Your task to perform on an android device: Go to display settings Image 0: 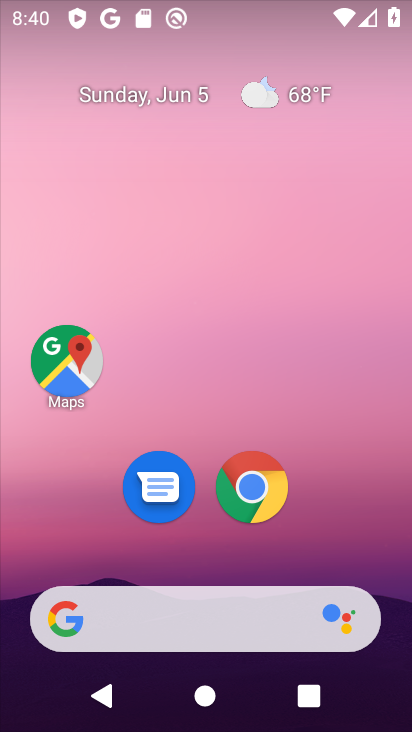
Step 0: drag from (211, 542) to (251, 14)
Your task to perform on an android device: Go to display settings Image 1: 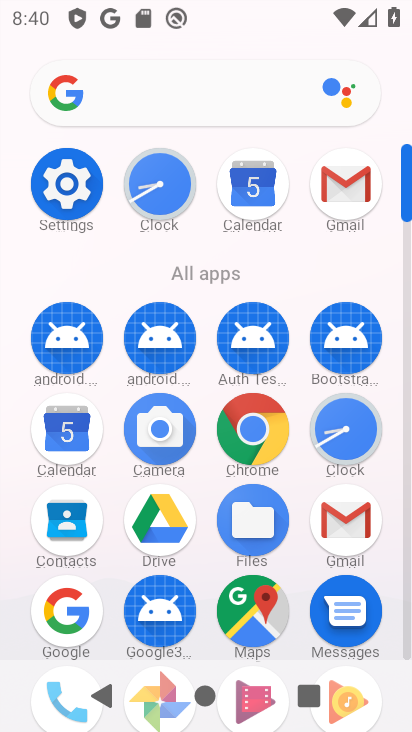
Step 1: click (82, 197)
Your task to perform on an android device: Go to display settings Image 2: 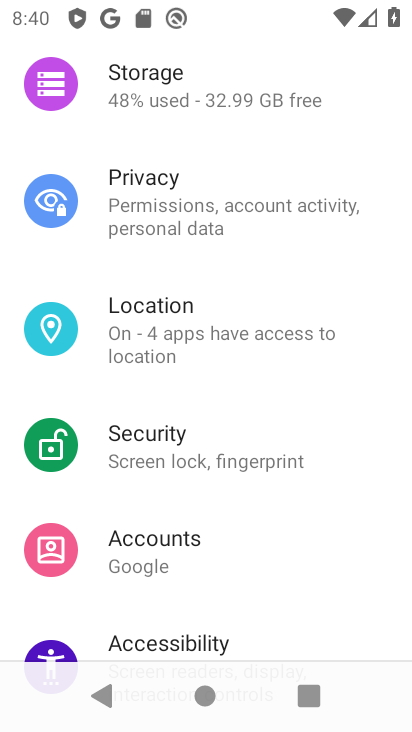
Step 2: drag from (245, 122) to (236, 595)
Your task to perform on an android device: Go to display settings Image 3: 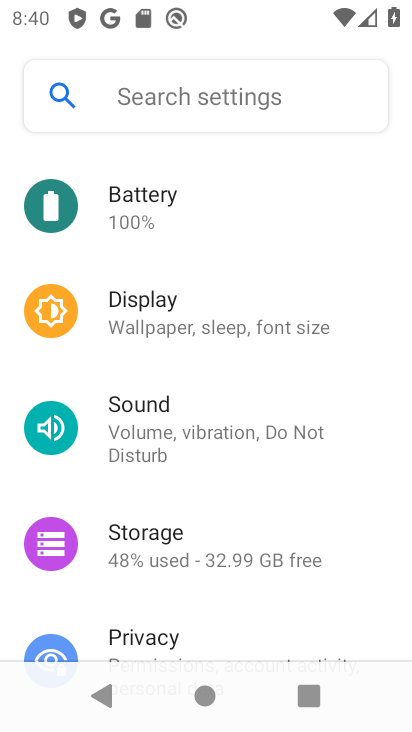
Step 3: click (166, 322)
Your task to perform on an android device: Go to display settings Image 4: 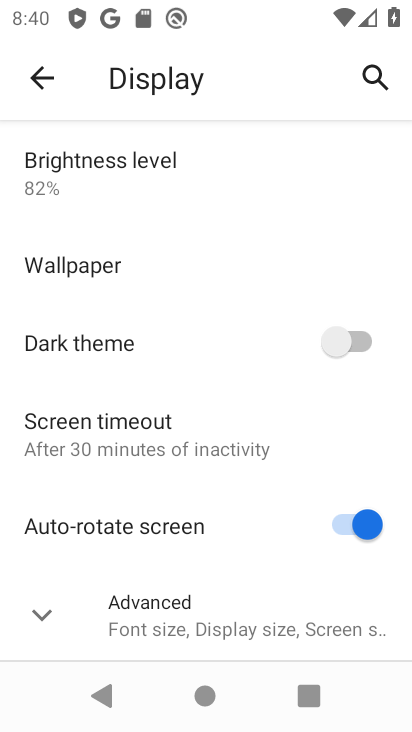
Step 4: task complete